Your task to perform on an android device: toggle location history Image 0: 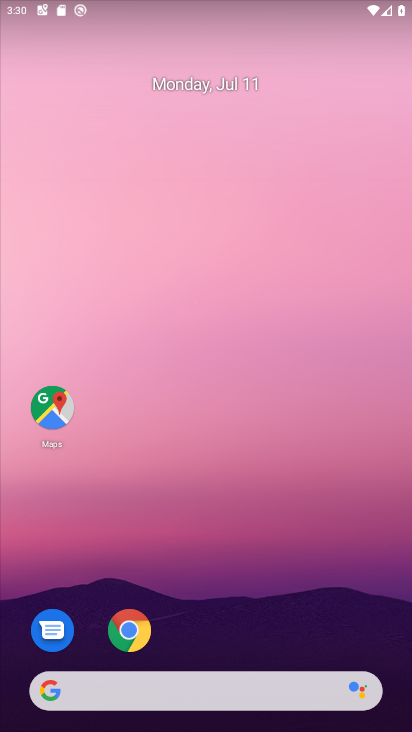
Step 0: drag from (246, 653) to (162, 194)
Your task to perform on an android device: toggle location history Image 1: 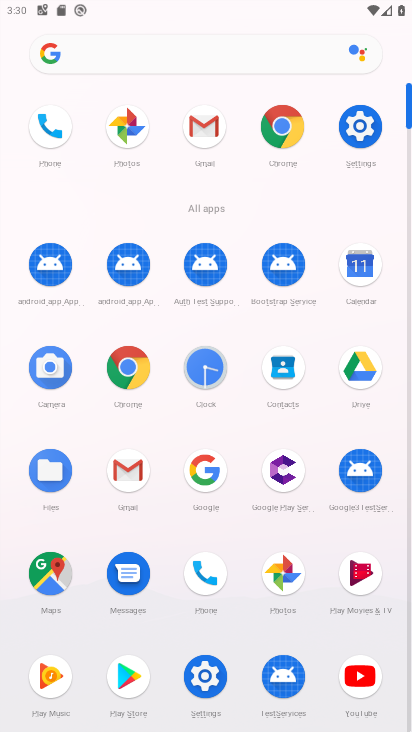
Step 1: click (344, 128)
Your task to perform on an android device: toggle location history Image 2: 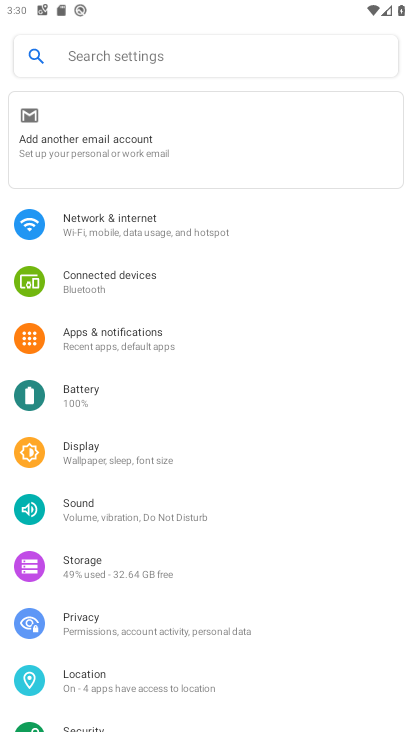
Step 2: click (160, 668)
Your task to perform on an android device: toggle location history Image 3: 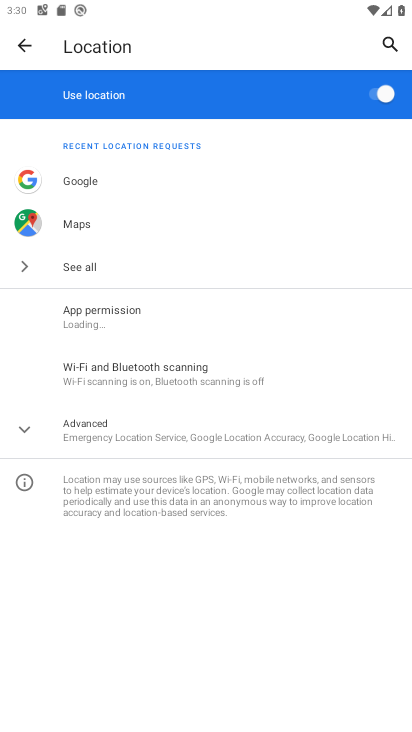
Step 3: click (222, 425)
Your task to perform on an android device: toggle location history Image 4: 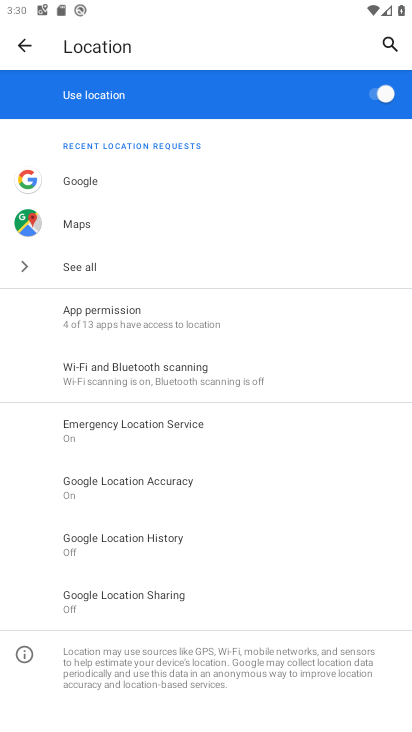
Step 4: click (140, 527)
Your task to perform on an android device: toggle location history Image 5: 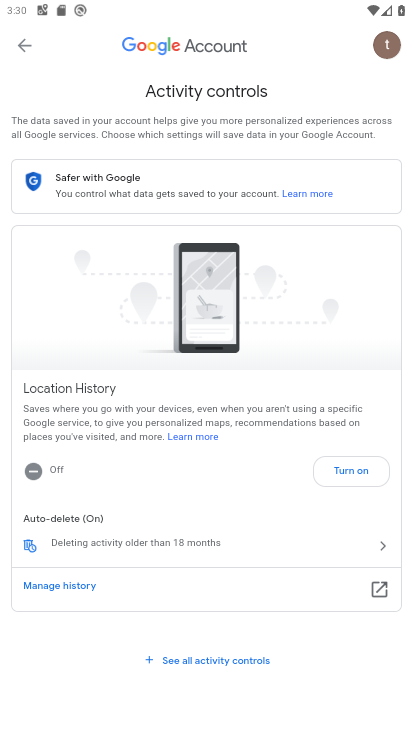
Step 5: click (333, 469)
Your task to perform on an android device: toggle location history Image 6: 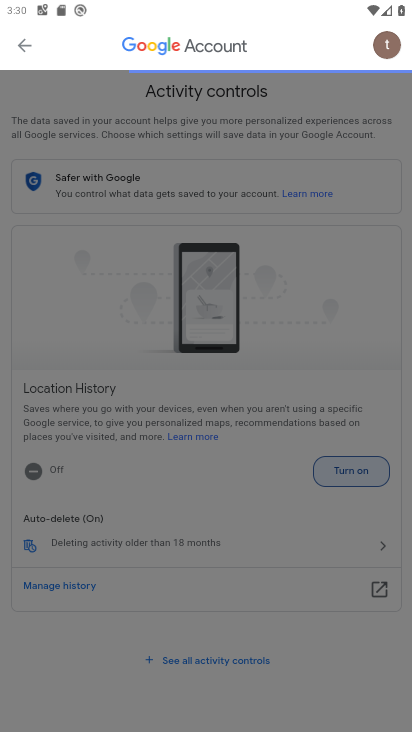
Step 6: task complete